Your task to perform on an android device: What's the weather today? Image 0: 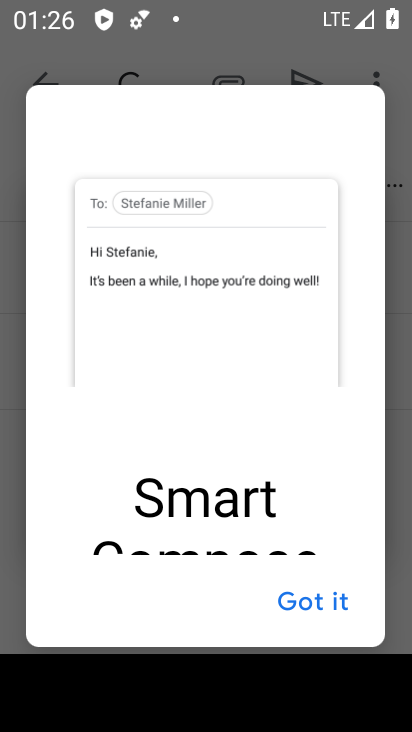
Step 0: press home button
Your task to perform on an android device: What's the weather today? Image 1: 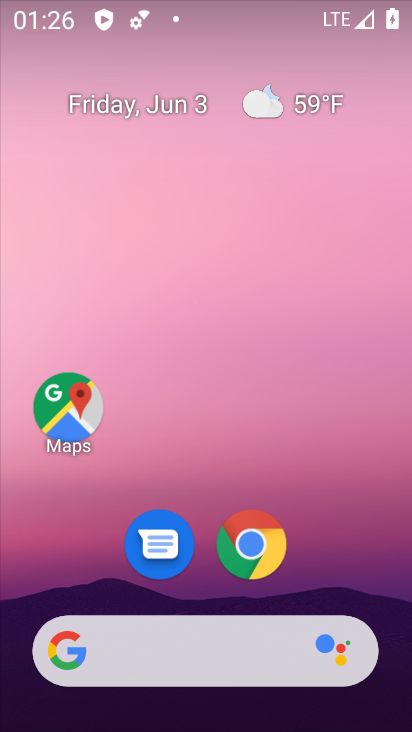
Step 1: click (207, 647)
Your task to perform on an android device: What's the weather today? Image 2: 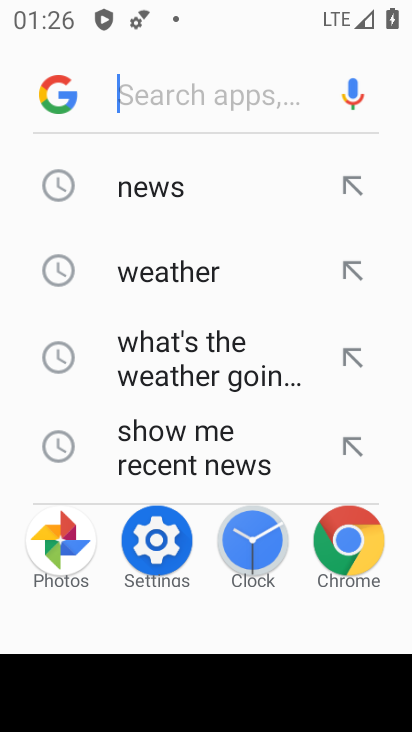
Step 2: click (165, 273)
Your task to perform on an android device: What's the weather today? Image 3: 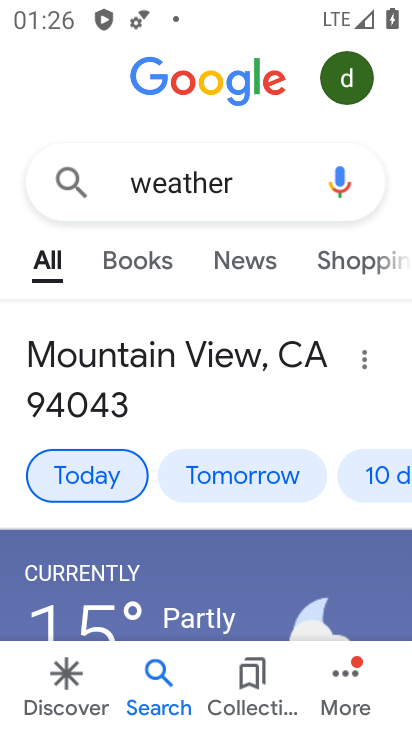
Step 3: task complete